Your task to perform on an android device: change the clock style Image 0: 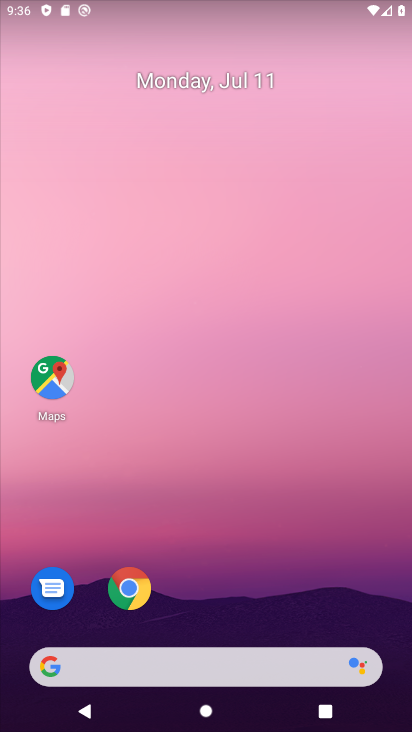
Step 0: drag from (297, 619) to (305, 69)
Your task to perform on an android device: change the clock style Image 1: 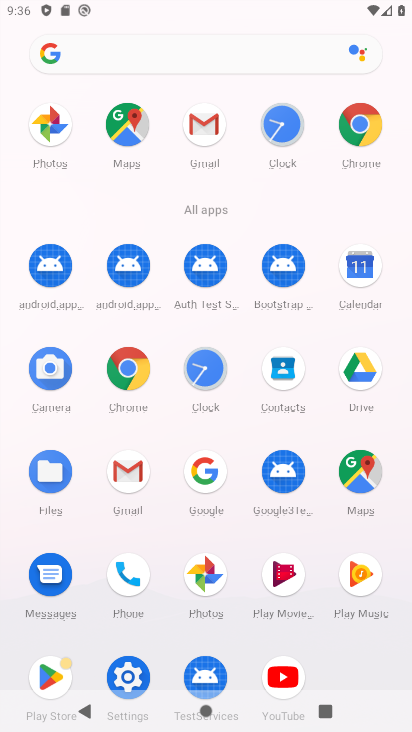
Step 1: click (208, 364)
Your task to perform on an android device: change the clock style Image 2: 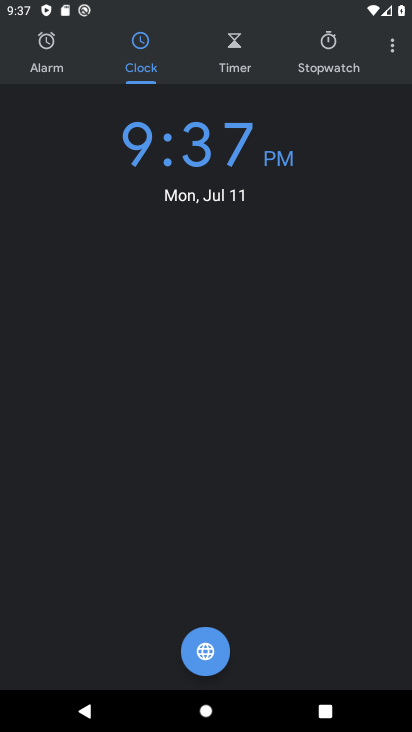
Step 2: click (394, 56)
Your task to perform on an android device: change the clock style Image 3: 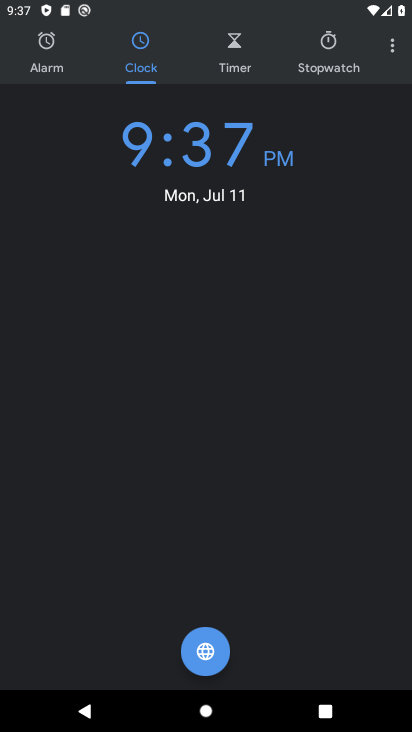
Step 3: click (393, 51)
Your task to perform on an android device: change the clock style Image 4: 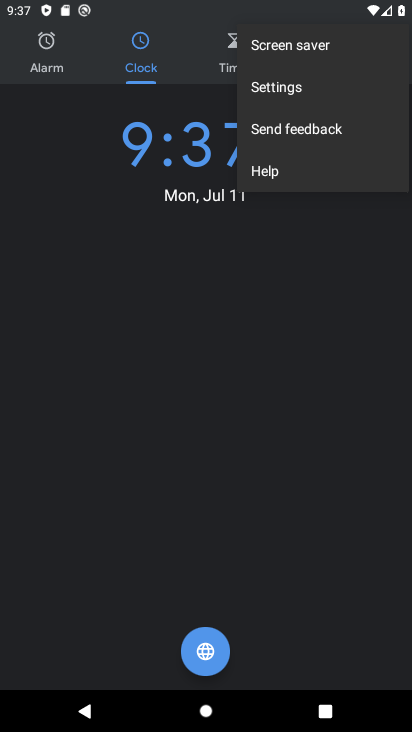
Step 4: click (302, 96)
Your task to perform on an android device: change the clock style Image 5: 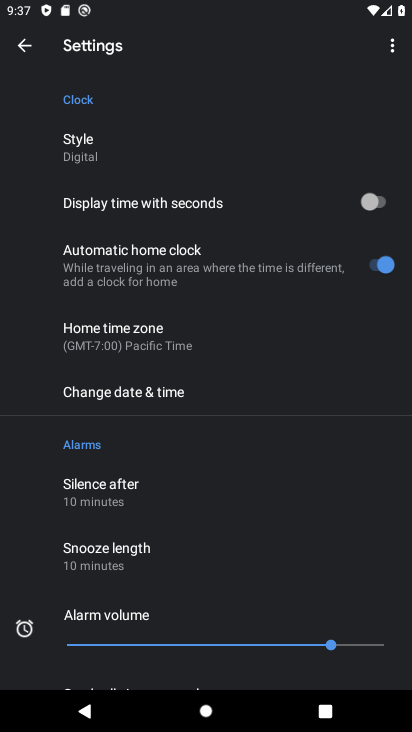
Step 5: click (105, 157)
Your task to perform on an android device: change the clock style Image 6: 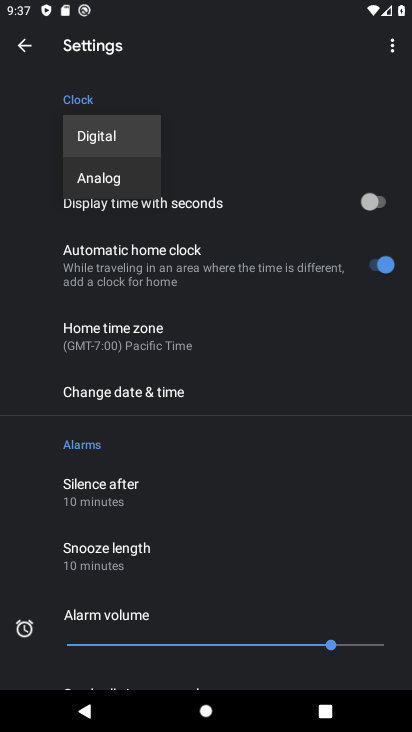
Step 6: click (123, 174)
Your task to perform on an android device: change the clock style Image 7: 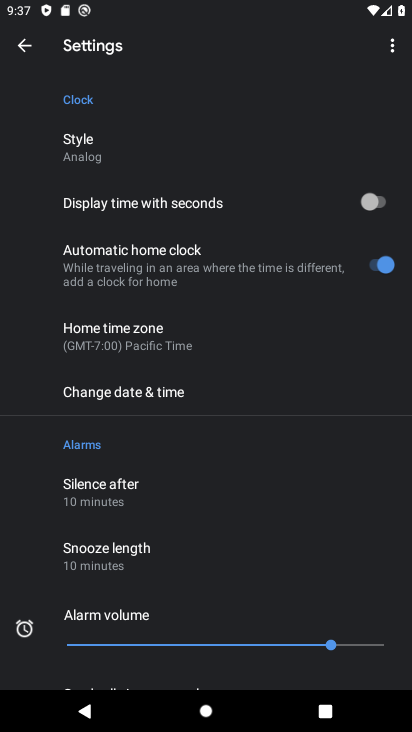
Step 7: task complete